Your task to perform on an android device: Open calendar and show me the first week of next month Image 0: 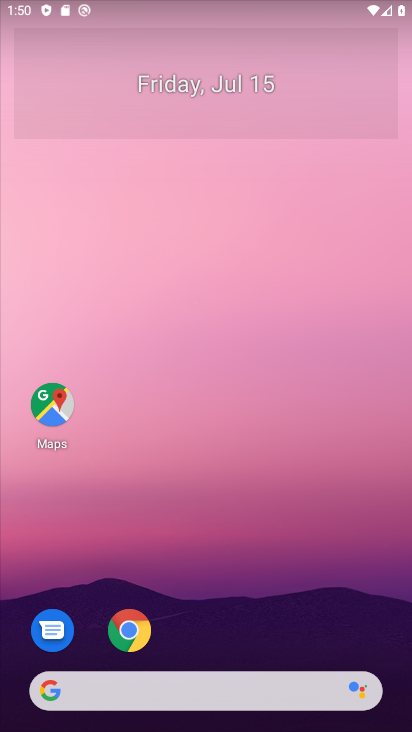
Step 0: press home button
Your task to perform on an android device: Open calendar and show me the first week of next month Image 1: 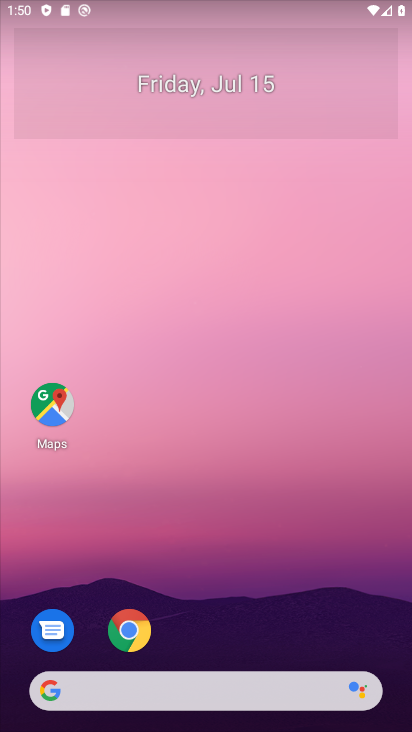
Step 1: drag from (233, 628) to (211, 5)
Your task to perform on an android device: Open calendar and show me the first week of next month Image 2: 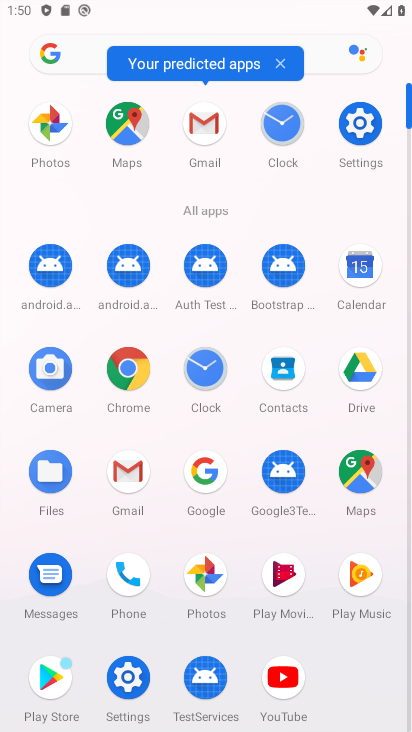
Step 2: click (369, 261)
Your task to perform on an android device: Open calendar and show me the first week of next month Image 3: 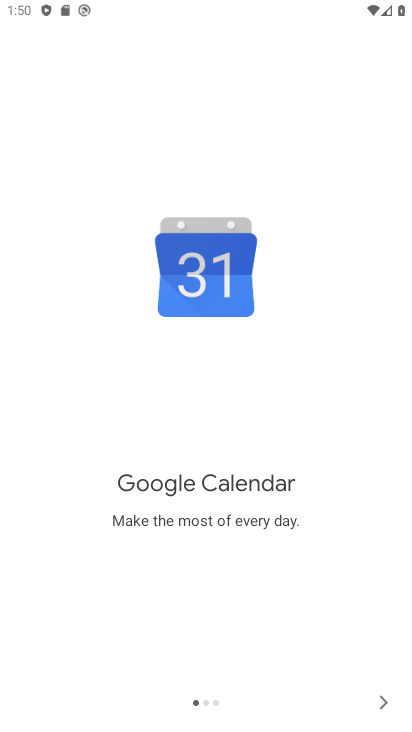
Step 3: click (387, 701)
Your task to perform on an android device: Open calendar and show me the first week of next month Image 4: 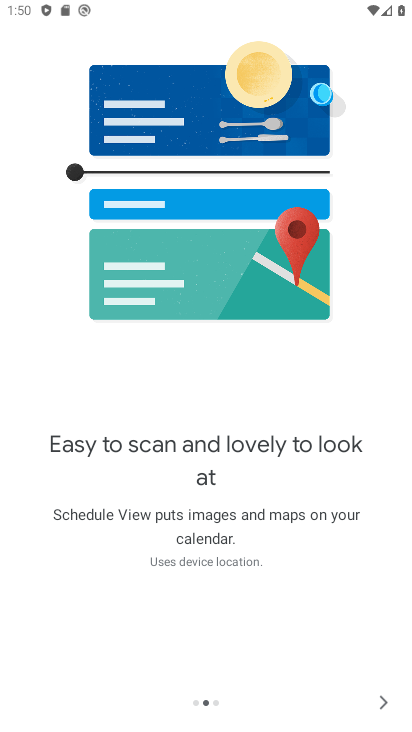
Step 4: click (387, 701)
Your task to perform on an android device: Open calendar and show me the first week of next month Image 5: 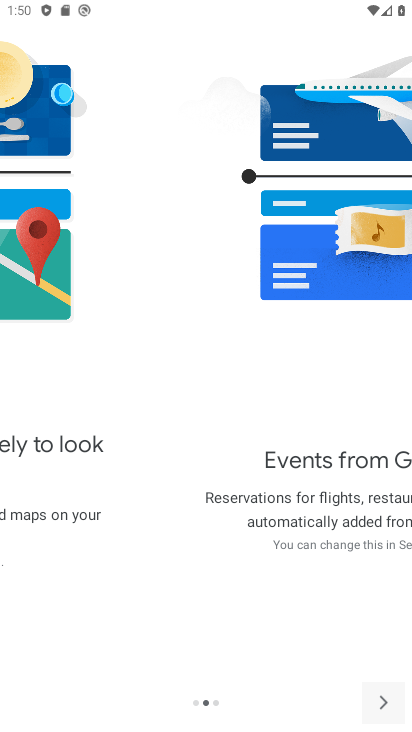
Step 5: click (387, 701)
Your task to perform on an android device: Open calendar and show me the first week of next month Image 6: 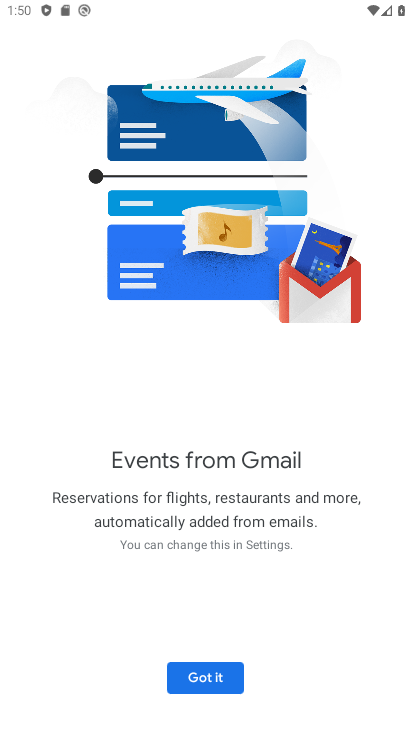
Step 6: click (225, 678)
Your task to perform on an android device: Open calendar and show me the first week of next month Image 7: 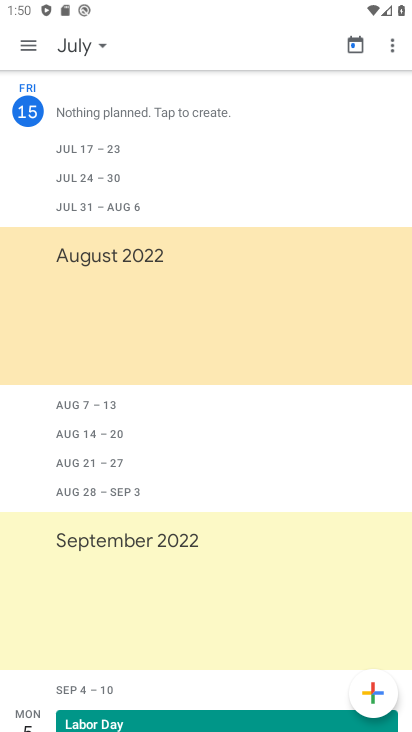
Step 7: click (34, 45)
Your task to perform on an android device: Open calendar and show me the first week of next month Image 8: 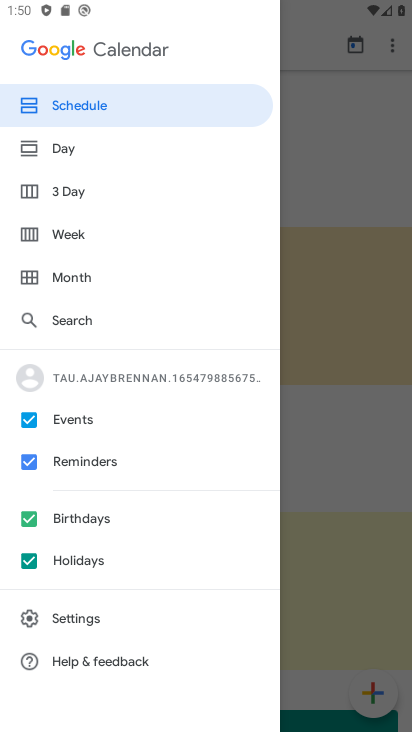
Step 8: click (72, 276)
Your task to perform on an android device: Open calendar and show me the first week of next month Image 9: 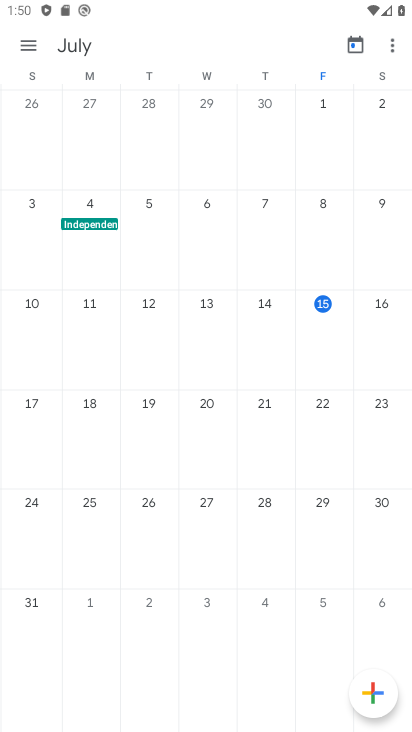
Step 9: drag from (342, 304) to (1, 55)
Your task to perform on an android device: Open calendar and show me the first week of next month Image 10: 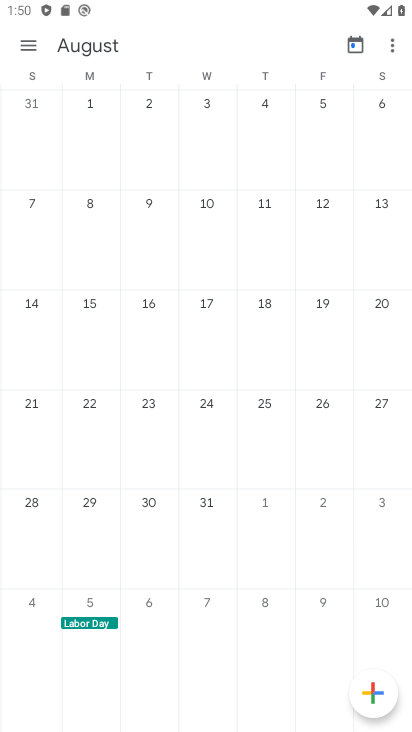
Step 10: click (26, 45)
Your task to perform on an android device: Open calendar and show me the first week of next month Image 11: 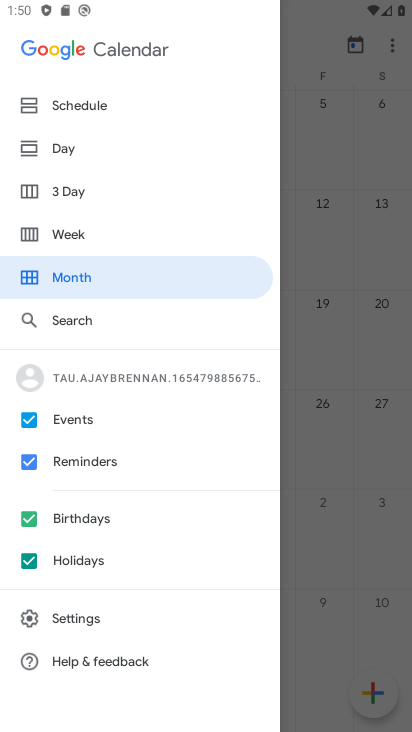
Step 11: click (86, 237)
Your task to perform on an android device: Open calendar and show me the first week of next month Image 12: 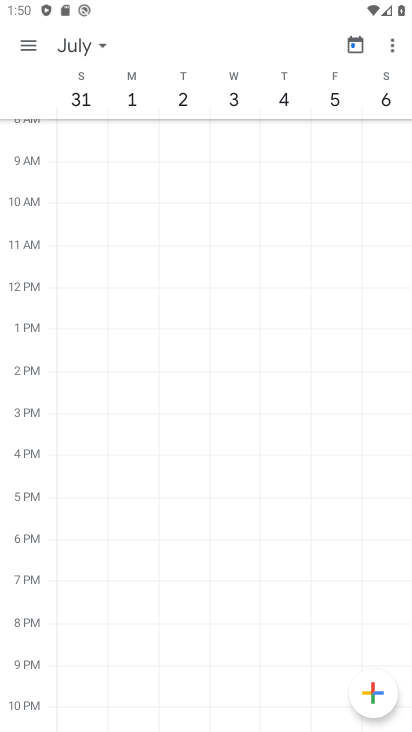
Step 12: task complete